Your task to perform on an android device: Open CNN.com Image 0: 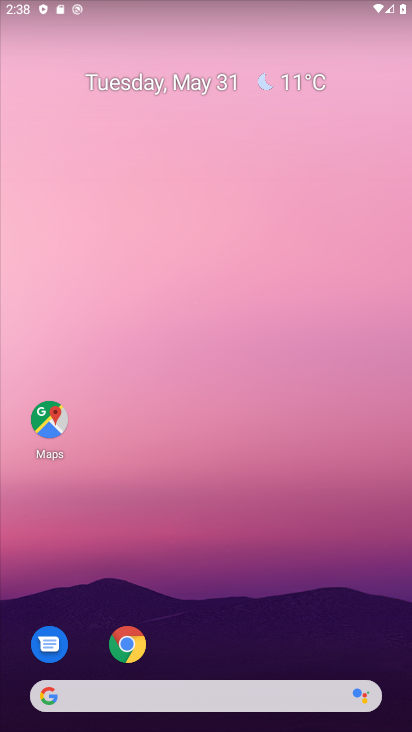
Step 0: click (130, 640)
Your task to perform on an android device: Open CNN.com Image 1: 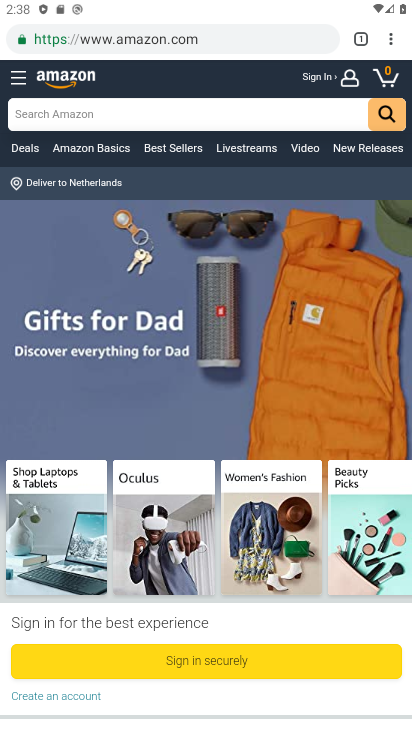
Step 1: click (351, 34)
Your task to perform on an android device: Open CNN.com Image 2: 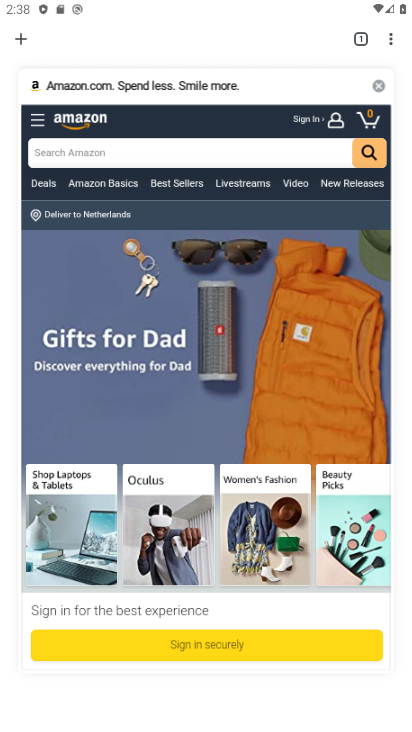
Step 2: click (12, 35)
Your task to perform on an android device: Open CNN.com Image 3: 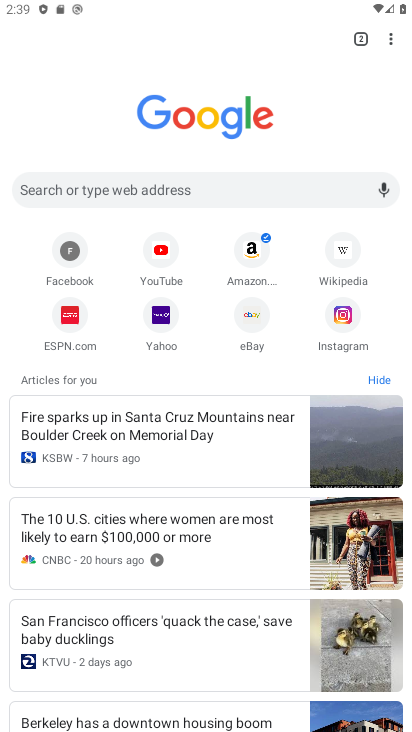
Step 3: click (147, 184)
Your task to perform on an android device: Open CNN.com Image 4: 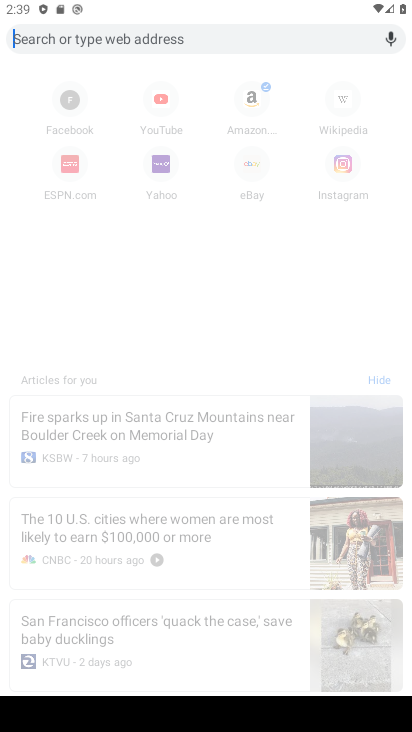
Step 4: type "CNN.com"
Your task to perform on an android device: Open CNN.com Image 5: 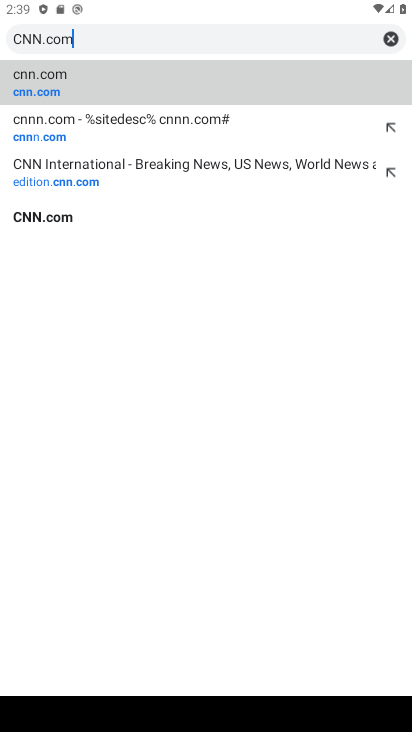
Step 5: click (168, 91)
Your task to perform on an android device: Open CNN.com Image 6: 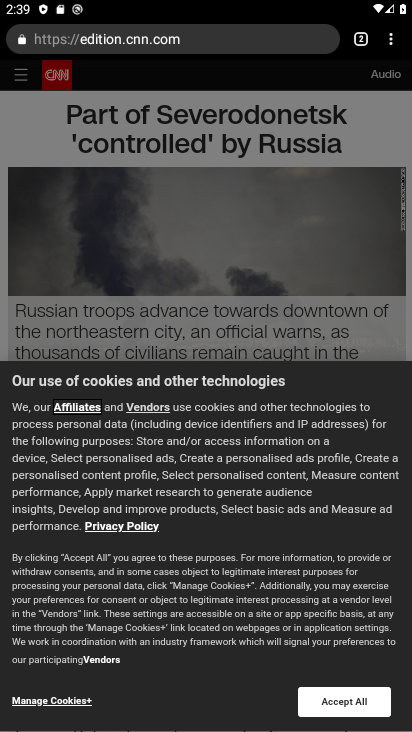
Step 6: task complete